Your task to perform on an android device: Open Chrome and go to settings Image 0: 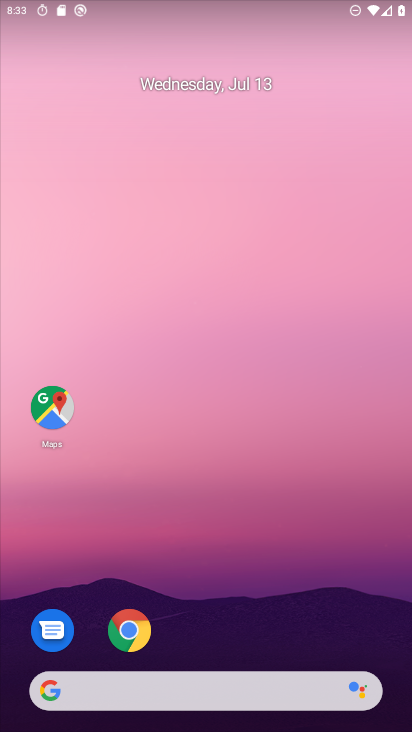
Step 0: drag from (371, 577) to (191, 23)
Your task to perform on an android device: Open Chrome and go to settings Image 1: 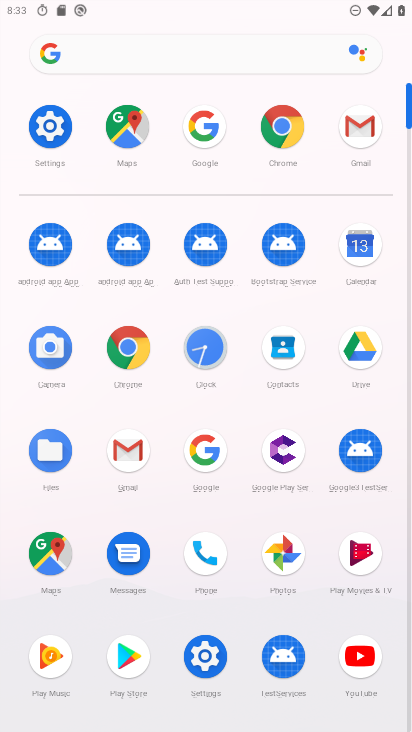
Step 1: click (41, 126)
Your task to perform on an android device: Open Chrome and go to settings Image 2: 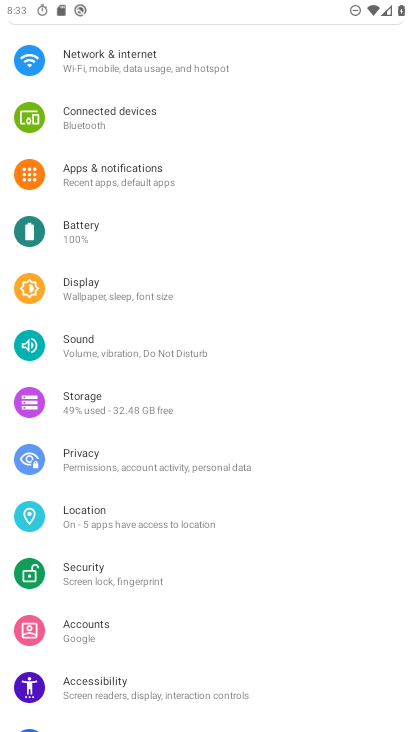
Step 2: press home button
Your task to perform on an android device: Open Chrome and go to settings Image 3: 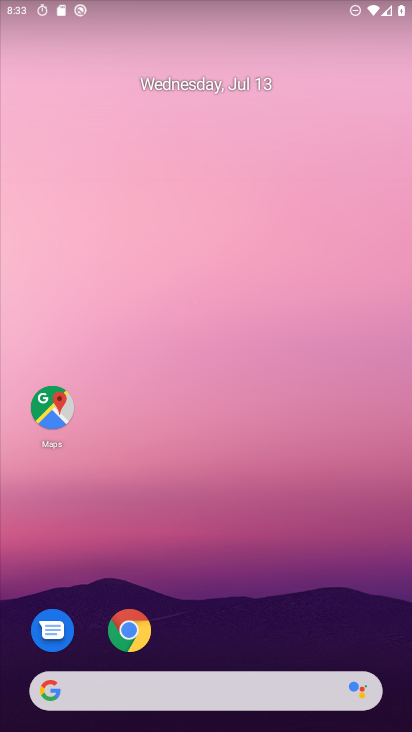
Step 3: drag from (354, 643) to (152, 15)
Your task to perform on an android device: Open Chrome and go to settings Image 4: 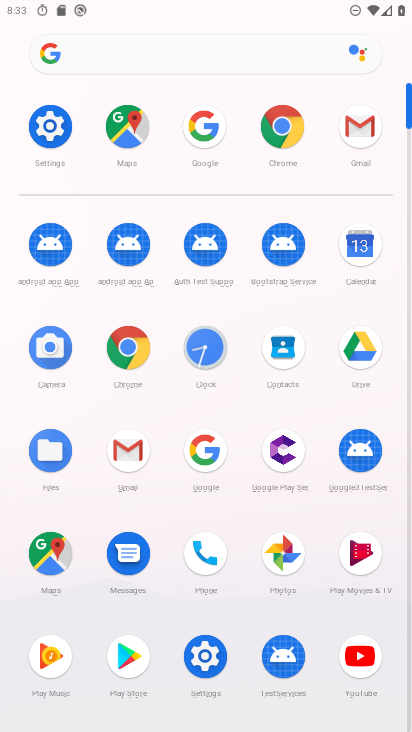
Step 4: click (282, 132)
Your task to perform on an android device: Open Chrome and go to settings Image 5: 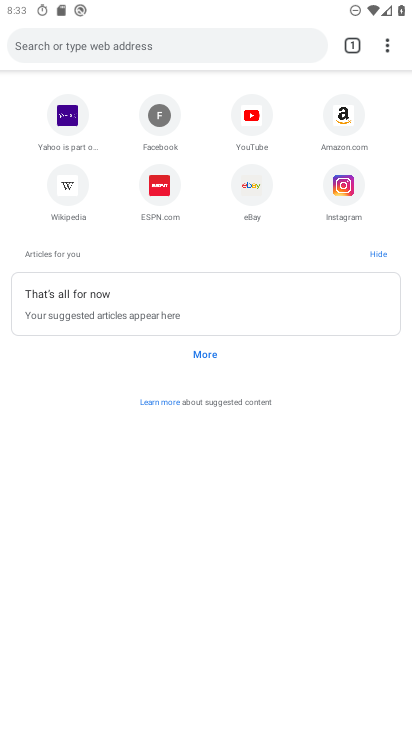
Step 5: click (387, 43)
Your task to perform on an android device: Open Chrome and go to settings Image 6: 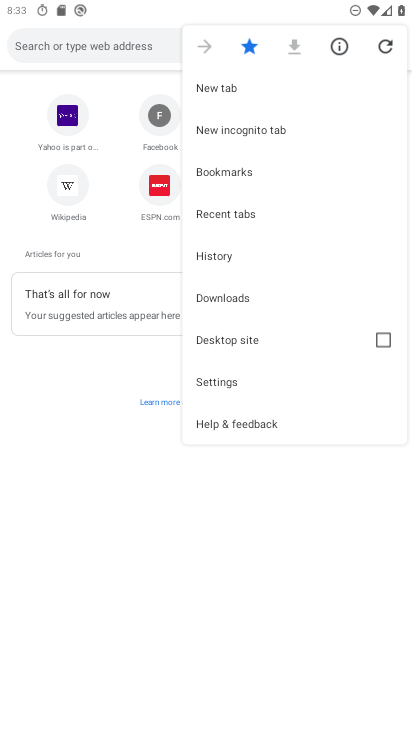
Step 6: click (223, 387)
Your task to perform on an android device: Open Chrome and go to settings Image 7: 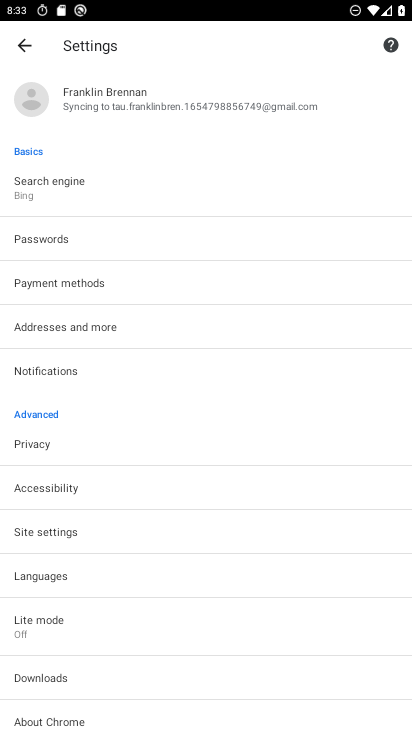
Step 7: task complete